Your task to perform on an android device: open device folders in google photos Image 0: 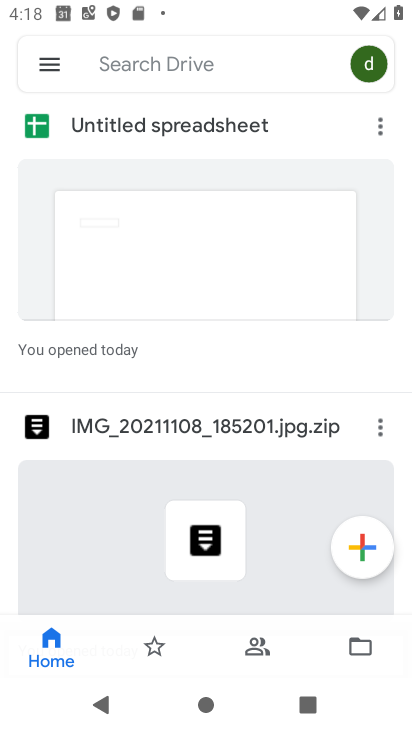
Step 0: press home button
Your task to perform on an android device: open device folders in google photos Image 1: 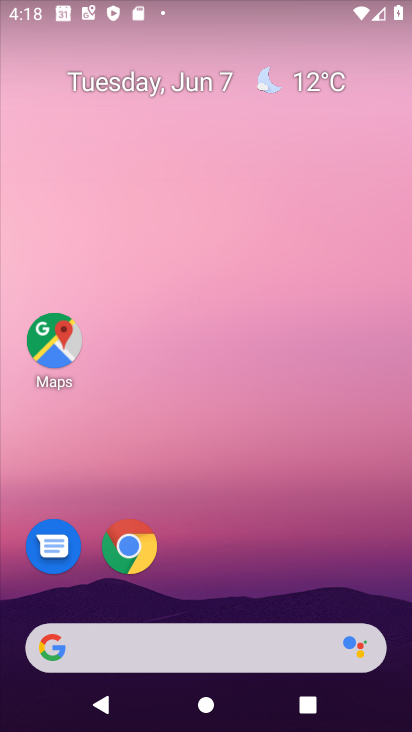
Step 1: drag from (213, 603) to (128, 55)
Your task to perform on an android device: open device folders in google photos Image 2: 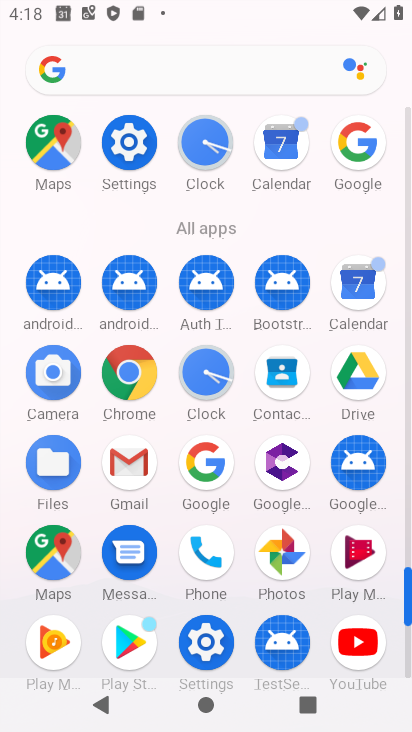
Step 2: click (258, 562)
Your task to perform on an android device: open device folders in google photos Image 3: 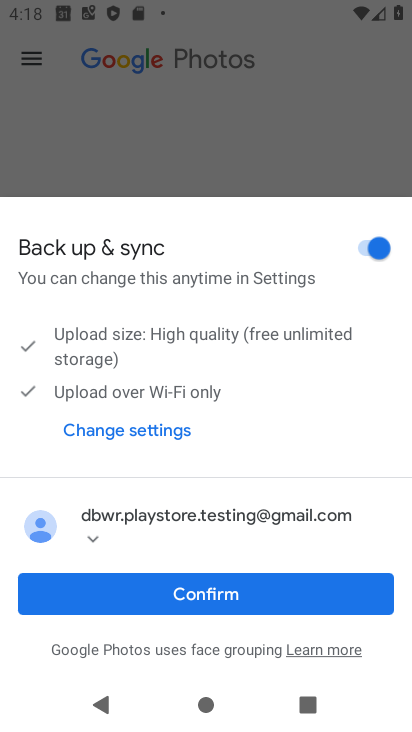
Step 3: click (240, 591)
Your task to perform on an android device: open device folders in google photos Image 4: 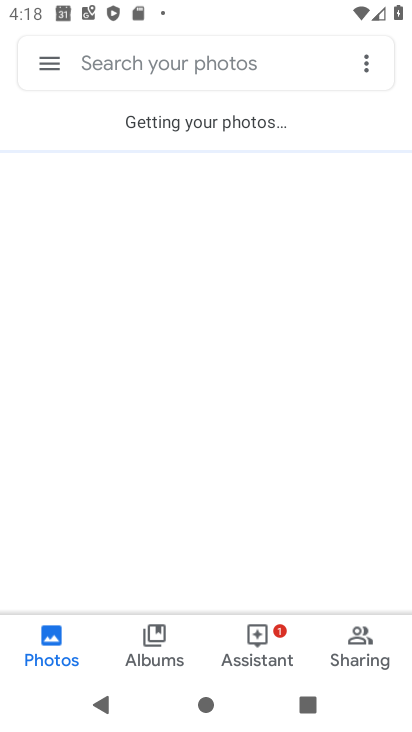
Step 4: click (61, 66)
Your task to perform on an android device: open device folders in google photos Image 5: 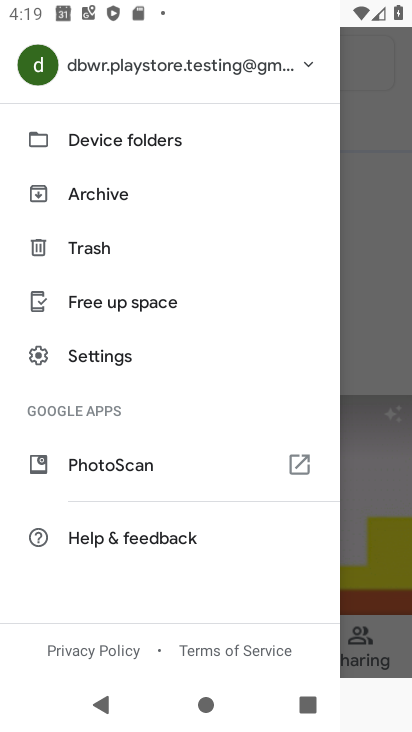
Step 5: click (134, 128)
Your task to perform on an android device: open device folders in google photos Image 6: 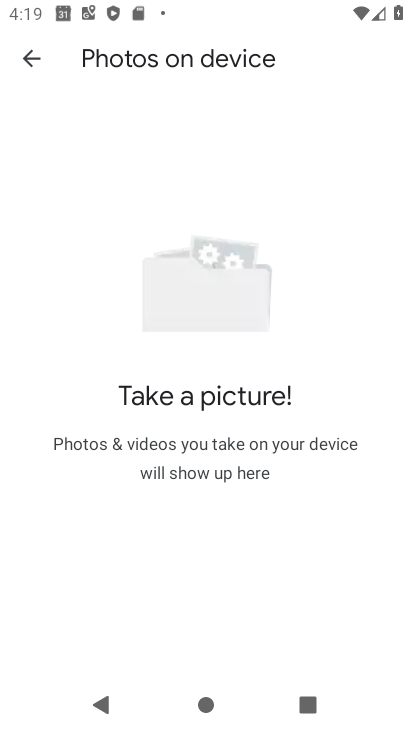
Step 6: task complete